Your task to perform on an android device: What's the weather going to be tomorrow? Image 0: 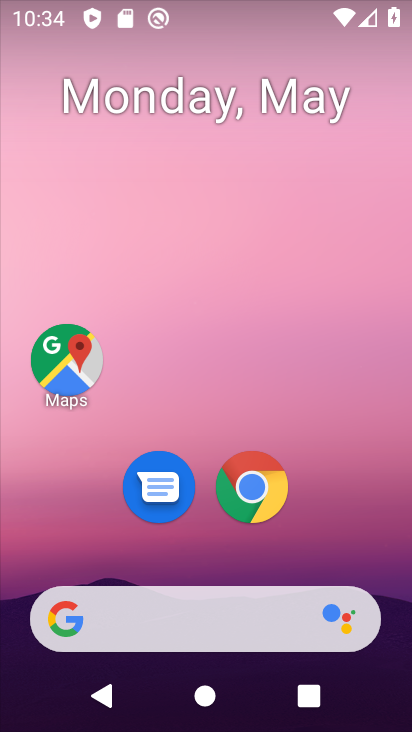
Step 0: click (256, 619)
Your task to perform on an android device: What's the weather going to be tomorrow? Image 1: 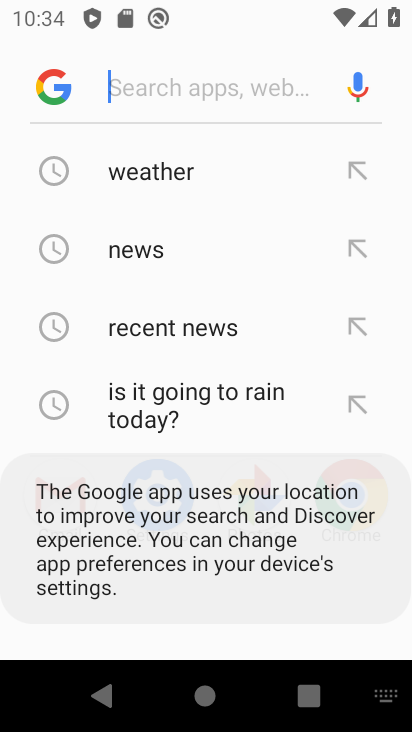
Step 1: click (139, 191)
Your task to perform on an android device: What's the weather going to be tomorrow? Image 2: 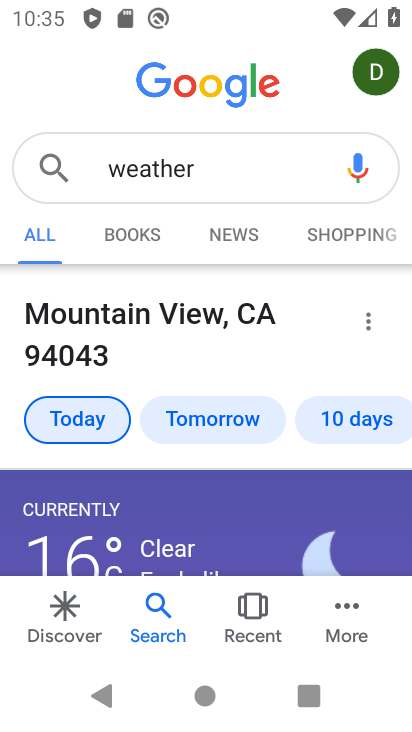
Step 2: click (201, 418)
Your task to perform on an android device: What's the weather going to be tomorrow? Image 3: 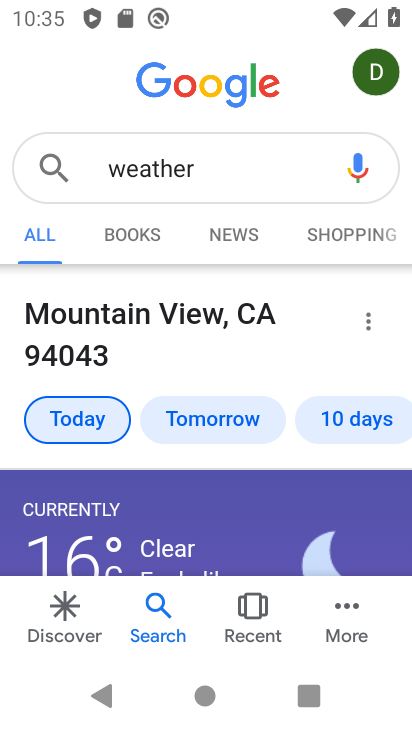
Step 3: click (231, 410)
Your task to perform on an android device: What's the weather going to be tomorrow? Image 4: 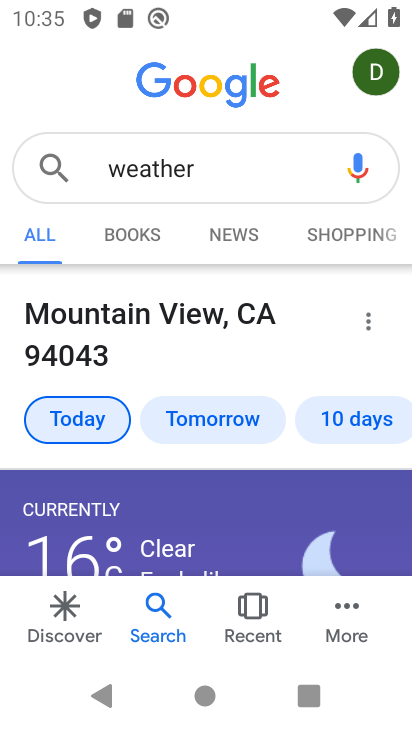
Step 4: click (226, 413)
Your task to perform on an android device: What's the weather going to be tomorrow? Image 5: 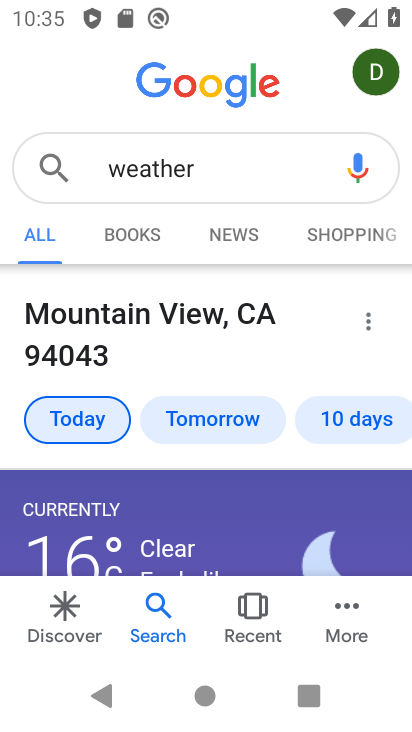
Step 5: click (228, 414)
Your task to perform on an android device: What's the weather going to be tomorrow? Image 6: 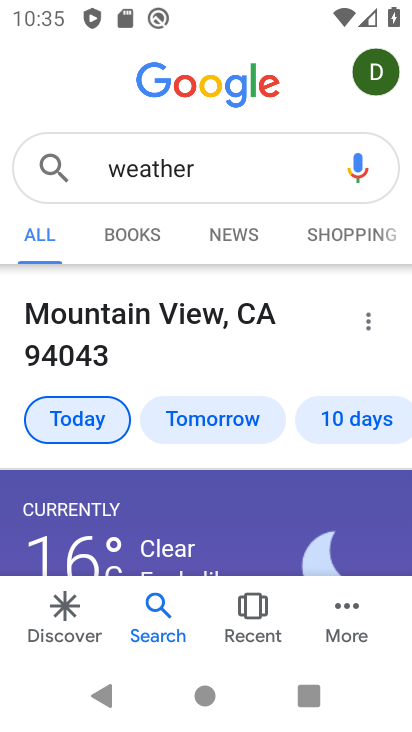
Step 6: task complete